Your task to perform on an android device: toggle pop-ups in chrome Image 0: 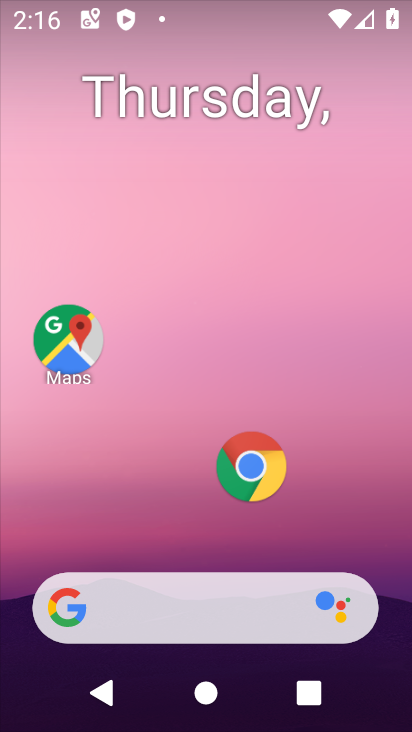
Step 0: click (252, 478)
Your task to perform on an android device: toggle pop-ups in chrome Image 1: 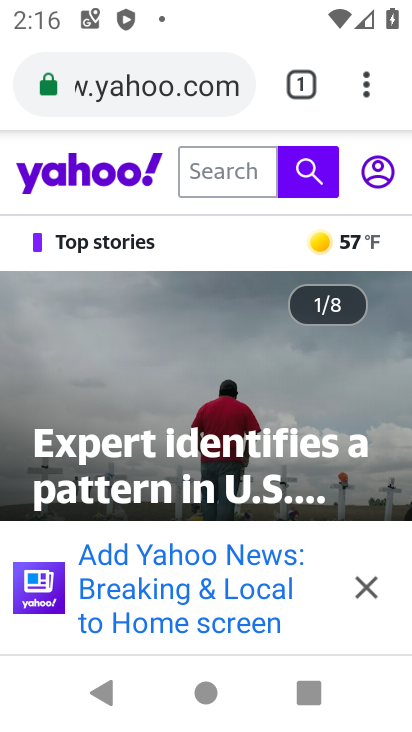
Step 1: click (362, 82)
Your task to perform on an android device: toggle pop-ups in chrome Image 2: 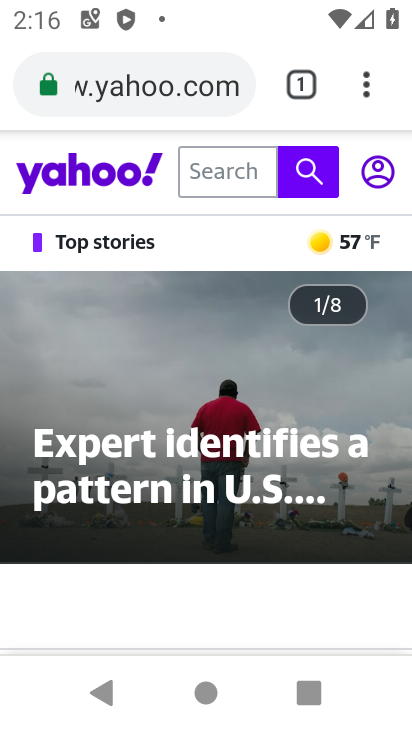
Step 2: drag from (369, 87) to (132, 505)
Your task to perform on an android device: toggle pop-ups in chrome Image 3: 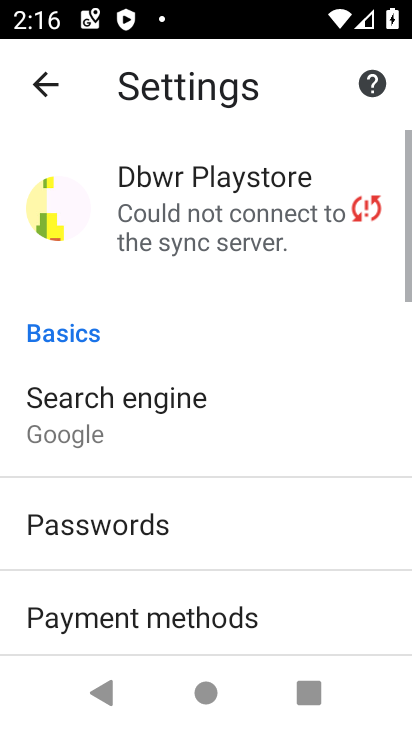
Step 3: drag from (237, 557) to (260, 173)
Your task to perform on an android device: toggle pop-ups in chrome Image 4: 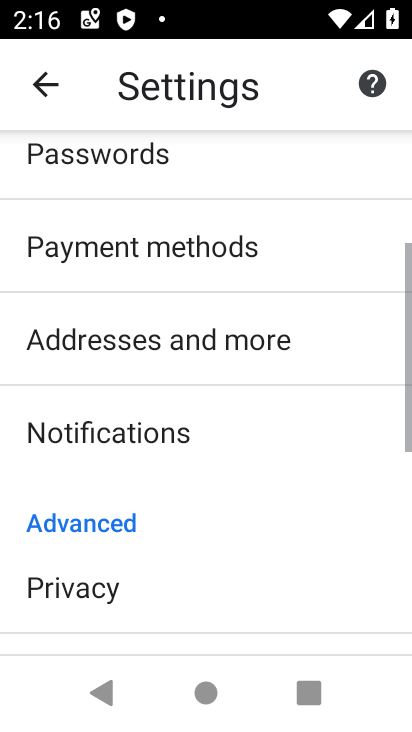
Step 4: drag from (260, 523) to (260, 269)
Your task to perform on an android device: toggle pop-ups in chrome Image 5: 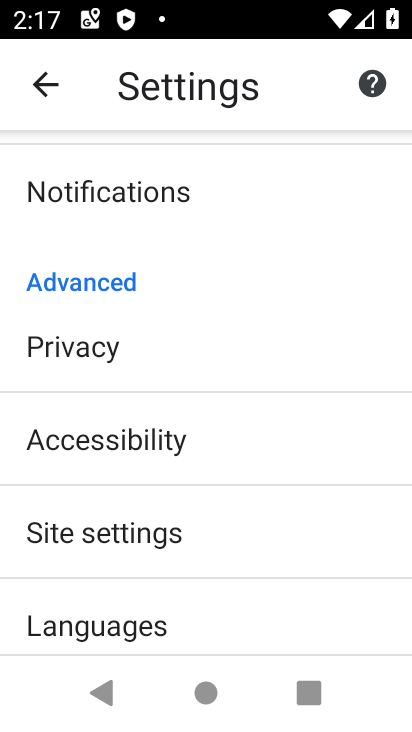
Step 5: click (207, 527)
Your task to perform on an android device: toggle pop-ups in chrome Image 6: 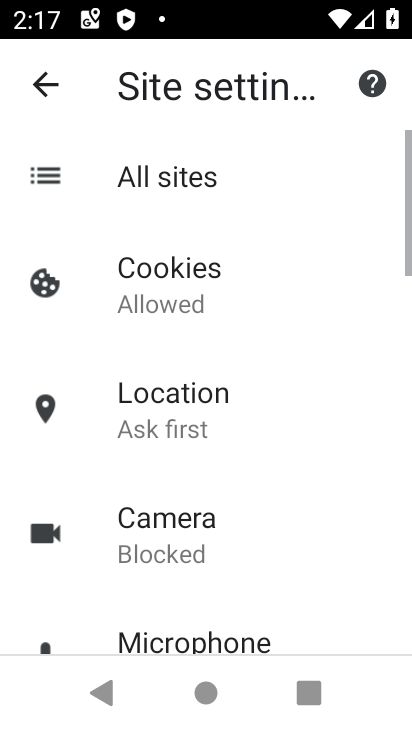
Step 6: drag from (262, 585) to (308, 254)
Your task to perform on an android device: toggle pop-ups in chrome Image 7: 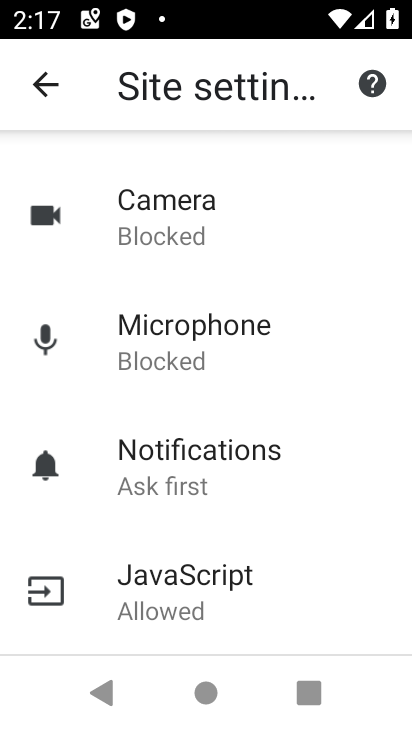
Step 7: drag from (304, 569) to (308, 292)
Your task to perform on an android device: toggle pop-ups in chrome Image 8: 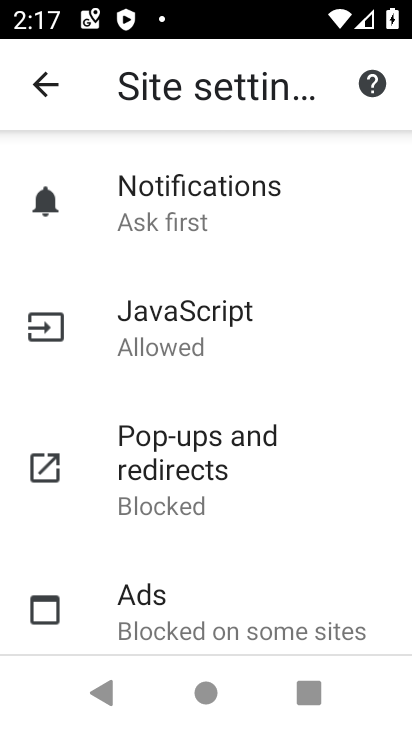
Step 8: click (261, 459)
Your task to perform on an android device: toggle pop-ups in chrome Image 9: 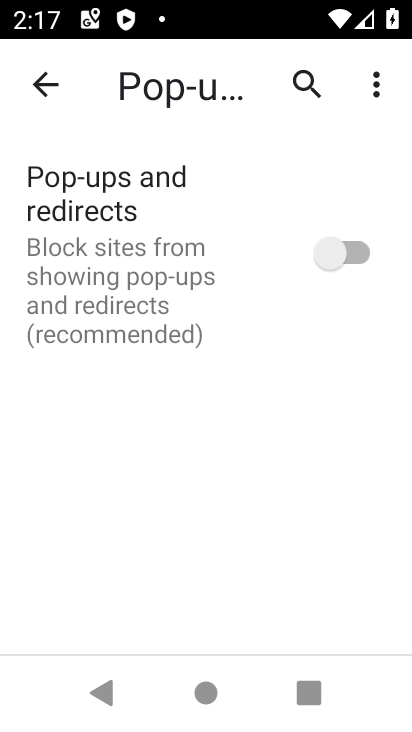
Step 9: click (359, 251)
Your task to perform on an android device: toggle pop-ups in chrome Image 10: 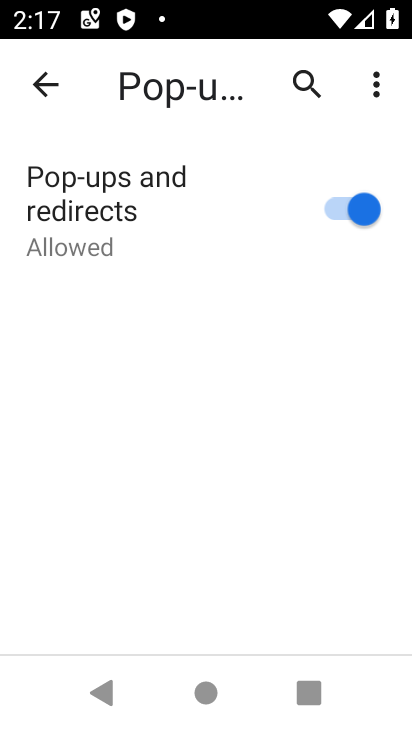
Step 10: task complete